Your task to perform on an android device: move an email to a new category in the gmail app Image 0: 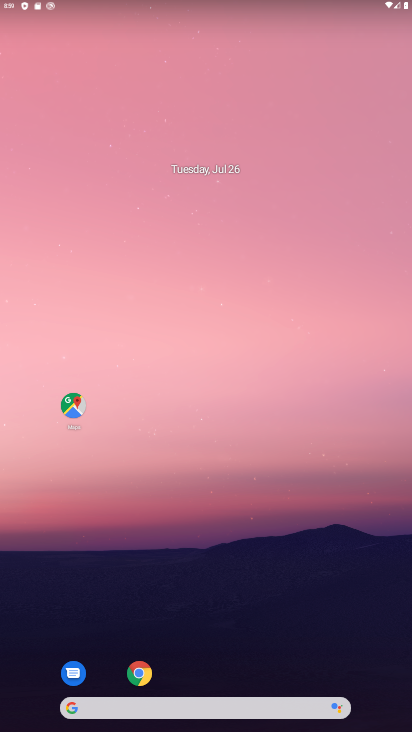
Step 0: drag from (167, 715) to (256, 122)
Your task to perform on an android device: move an email to a new category in the gmail app Image 1: 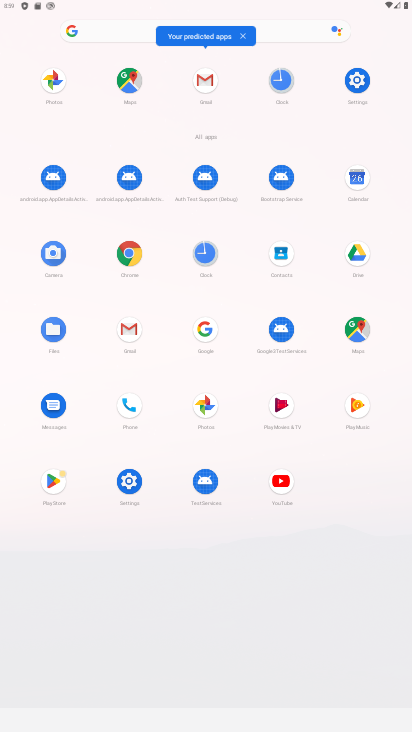
Step 1: click (204, 79)
Your task to perform on an android device: move an email to a new category in the gmail app Image 2: 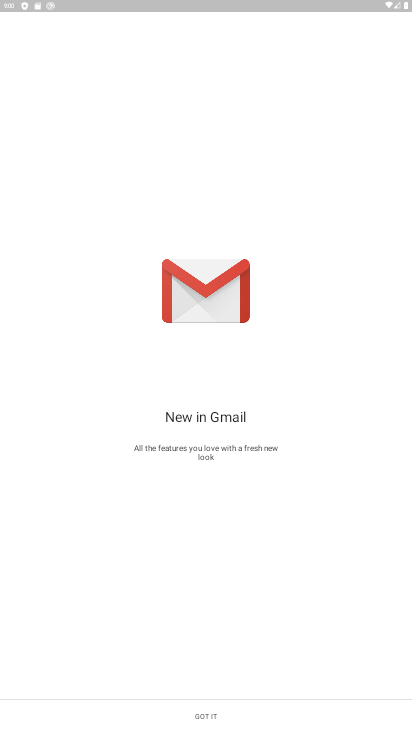
Step 2: click (206, 716)
Your task to perform on an android device: move an email to a new category in the gmail app Image 3: 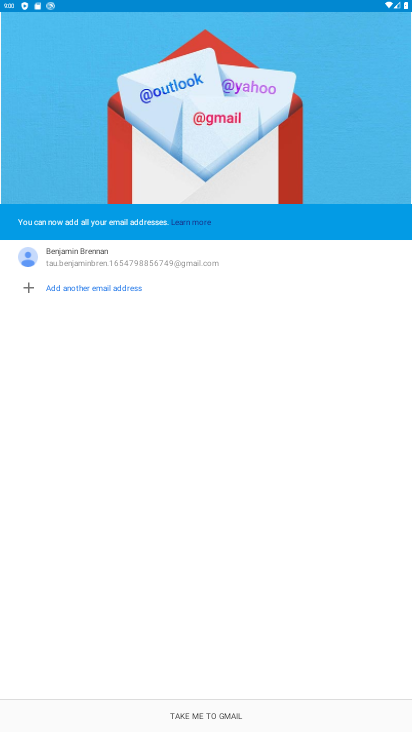
Step 3: click (206, 716)
Your task to perform on an android device: move an email to a new category in the gmail app Image 4: 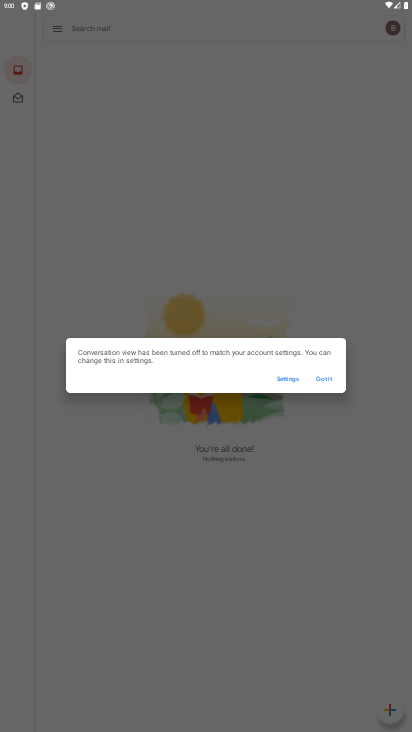
Step 4: click (325, 379)
Your task to perform on an android device: move an email to a new category in the gmail app Image 5: 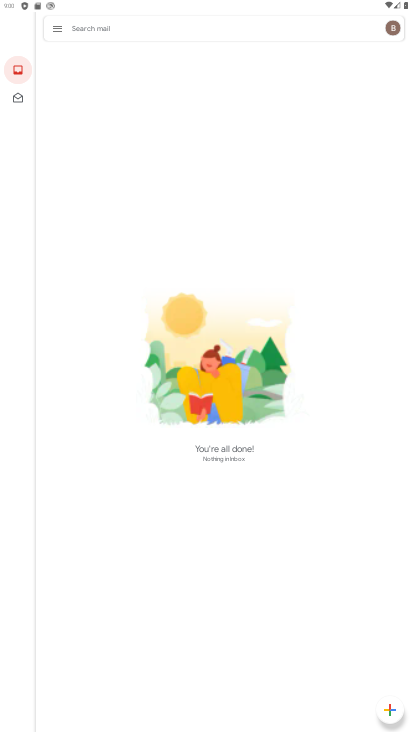
Step 5: click (59, 30)
Your task to perform on an android device: move an email to a new category in the gmail app Image 6: 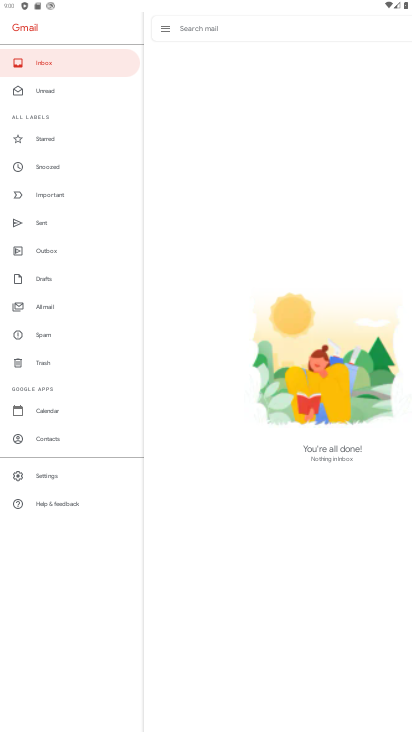
Step 6: click (48, 91)
Your task to perform on an android device: move an email to a new category in the gmail app Image 7: 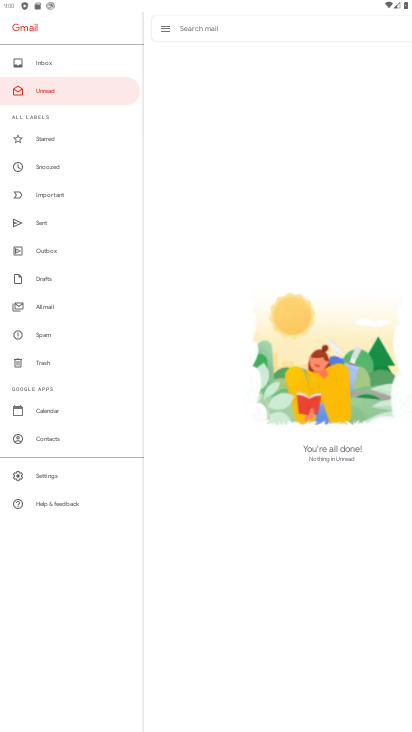
Step 7: click (47, 144)
Your task to perform on an android device: move an email to a new category in the gmail app Image 8: 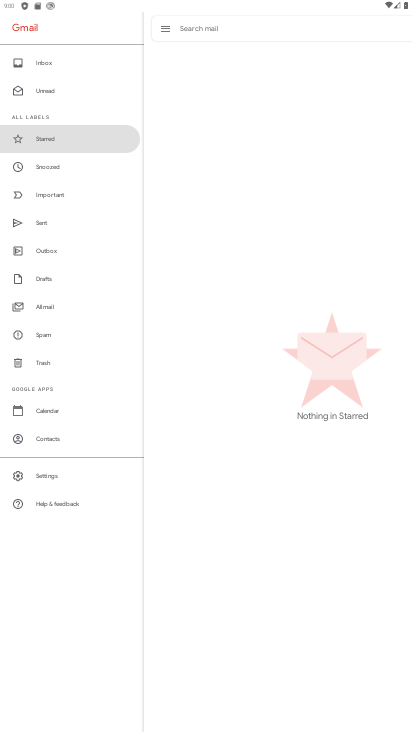
Step 8: click (47, 169)
Your task to perform on an android device: move an email to a new category in the gmail app Image 9: 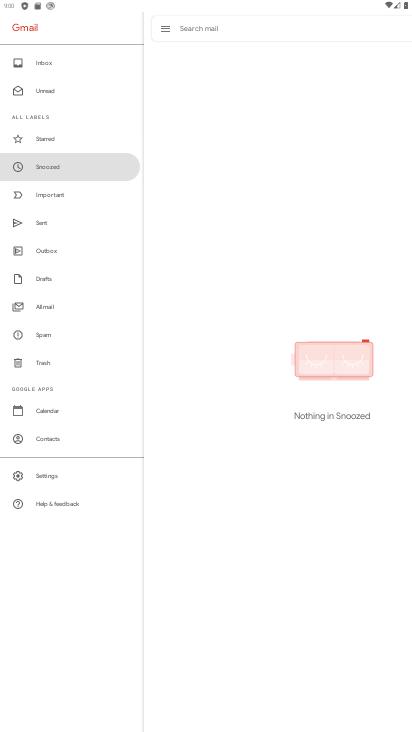
Step 9: click (44, 193)
Your task to perform on an android device: move an email to a new category in the gmail app Image 10: 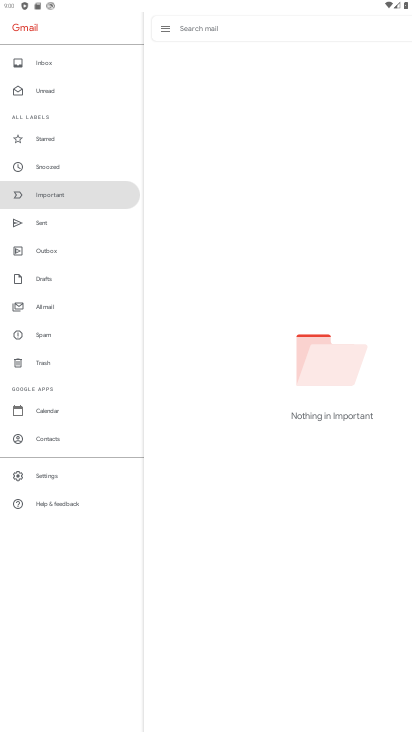
Step 10: click (24, 227)
Your task to perform on an android device: move an email to a new category in the gmail app Image 11: 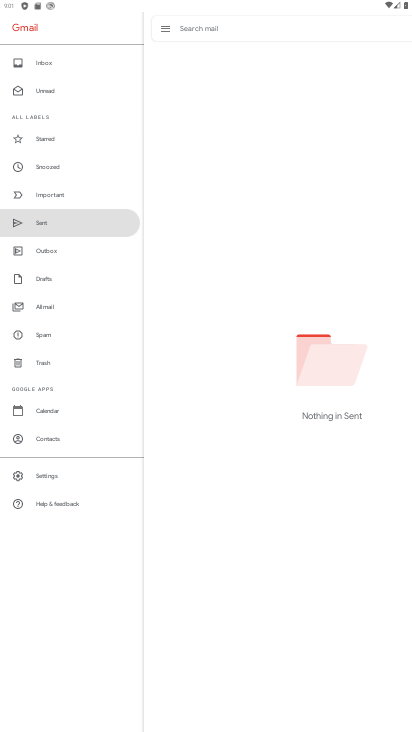
Step 11: click (43, 250)
Your task to perform on an android device: move an email to a new category in the gmail app Image 12: 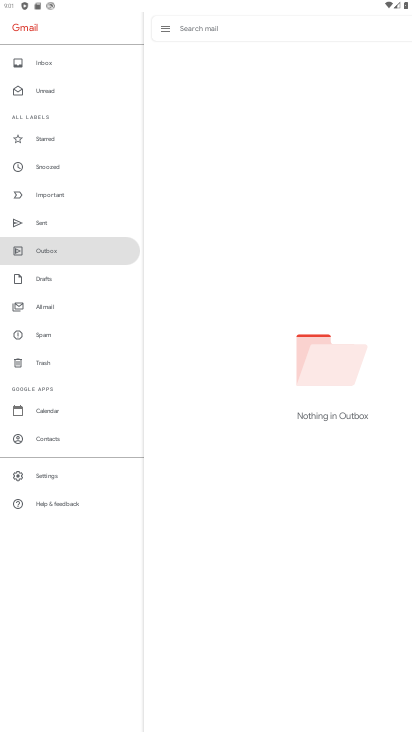
Step 12: click (45, 284)
Your task to perform on an android device: move an email to a new category in the gmail app Image 13: 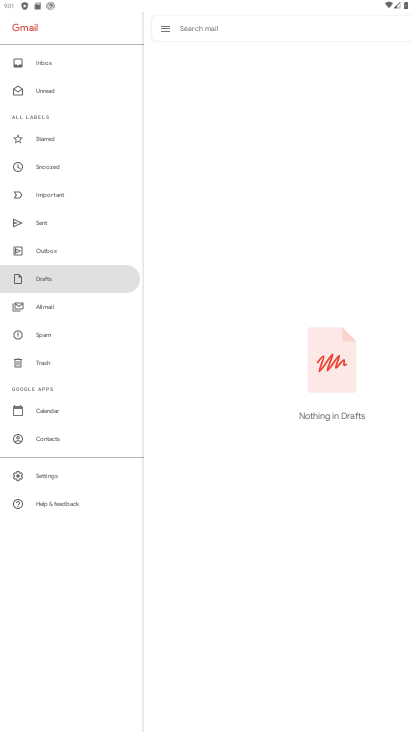
Step 13: click (46, 307)
Your task to perform on an android device: move an email to a new category in the gmail app Image 14: 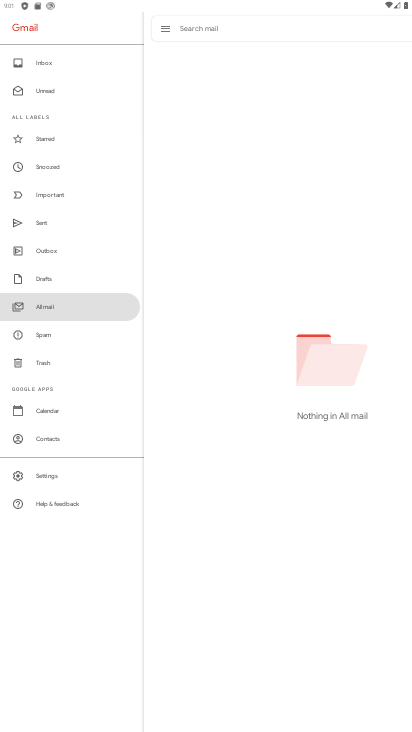
Step 14: click (43, 333)
Your task to perform on an android device: move an email to a new category in the gmail app Image 15: 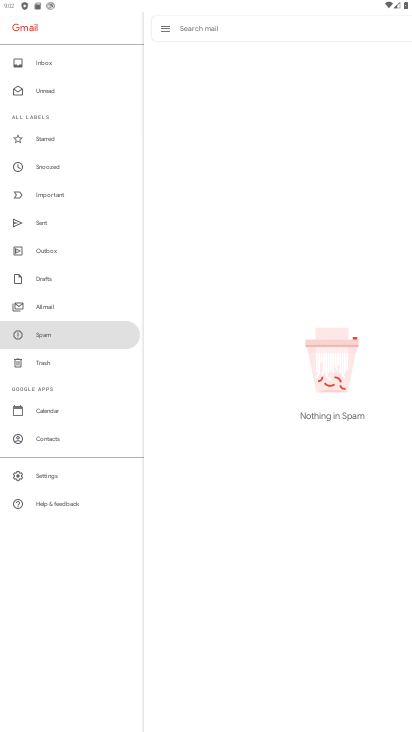
Step 15: click (40, 358)
Your task to perform on an android device: move an email to a new category in the gmail app Image 16: 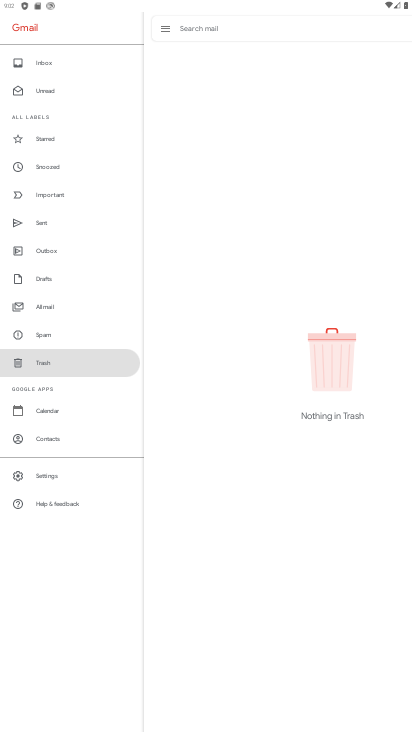
Step 16: task complete